Your task to perform on an android device: change timer sound Image 0: 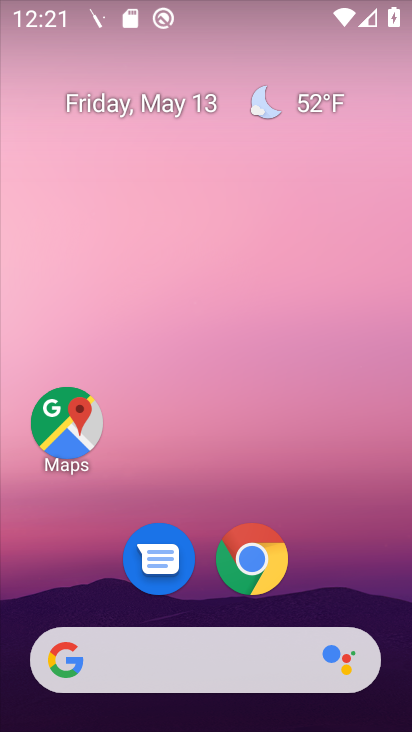
Step 0: drag from (341, 572) to (347, 195)
Your task to perform on an android device: change timer sound Image 1: 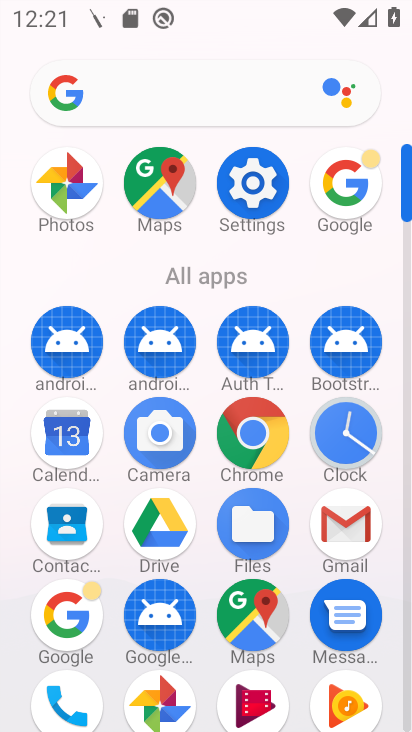
Step 1: click (250, 209)
Your task to perform on an android device: change timer sound Image 2: 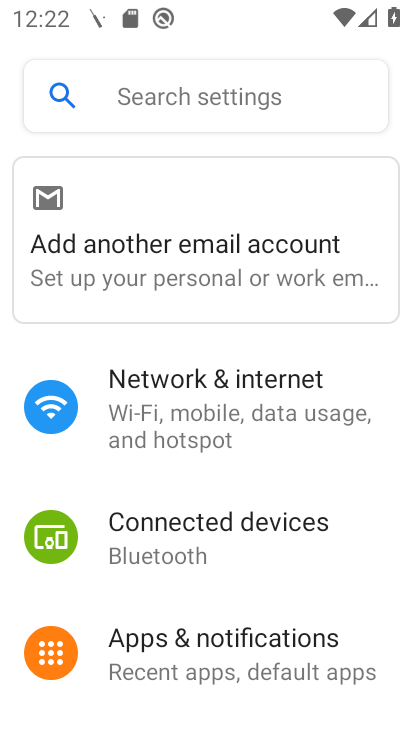
Step 2: press home button
Your task to perform on an android device: change timer sound Image 3: 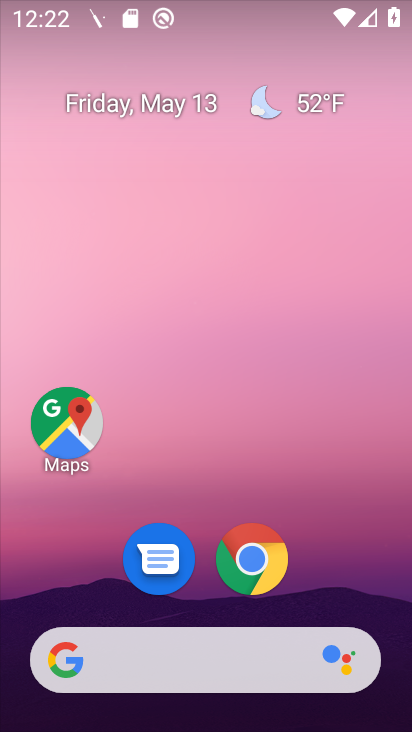
Step 3: drag from (339, 502) to (323, 117)
Your task to perform on an android device: change timer sound Image 4: 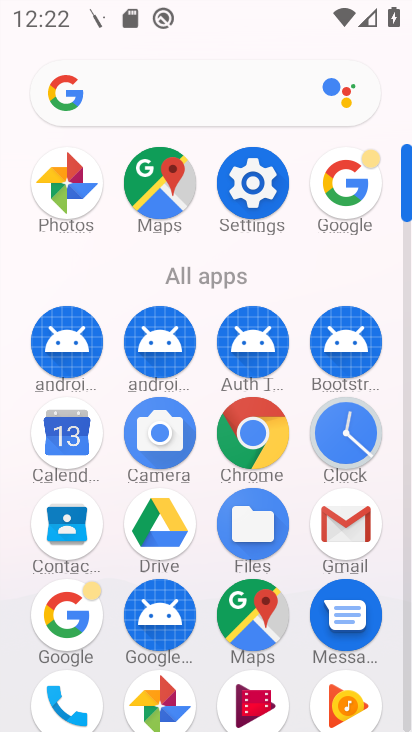
Step 4: click (326, 444)
Your task to perform on an android device: change timer sound Image 5: 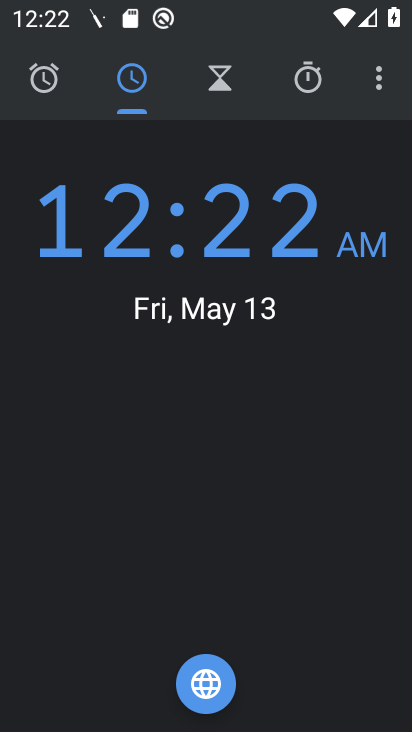
Step 5: click (368, 91)
Your task to perform on an android device: change timer sound Image 6: 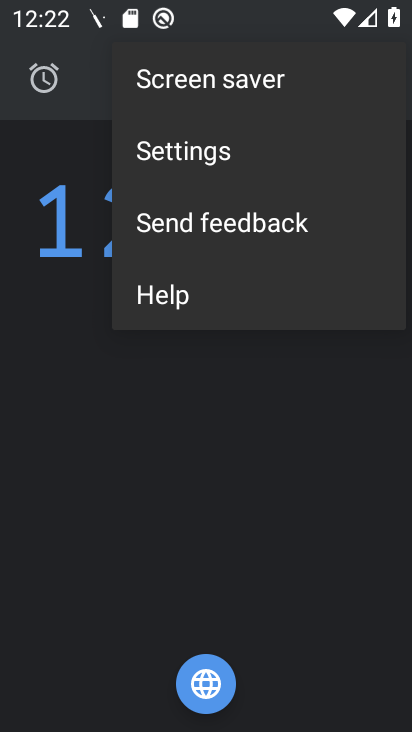
Step 6: click (200, 147)
Your task to perform on an android device: change timer sound Image 7: 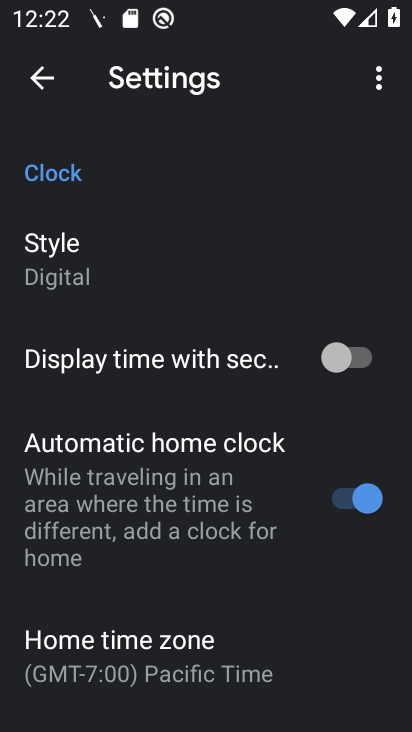
Step 7: drag from (189, 549) to (180, 224)
Your task to perform on an android device: change timer sound Image 8: 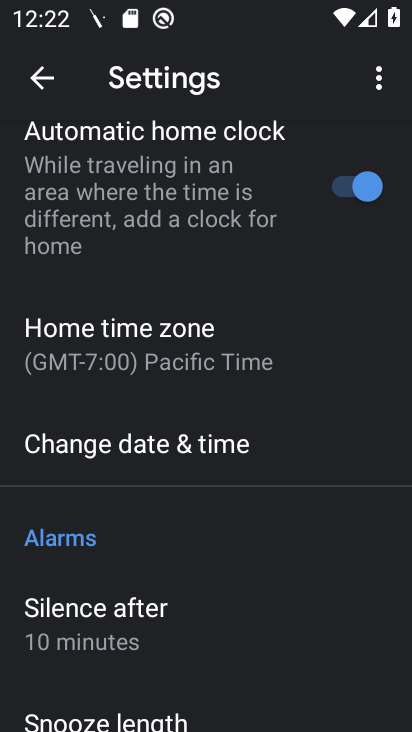
Step 8: drag from (170, 548) to (177, 226)
Your task to perform on an android device: change timer sound Image 9: 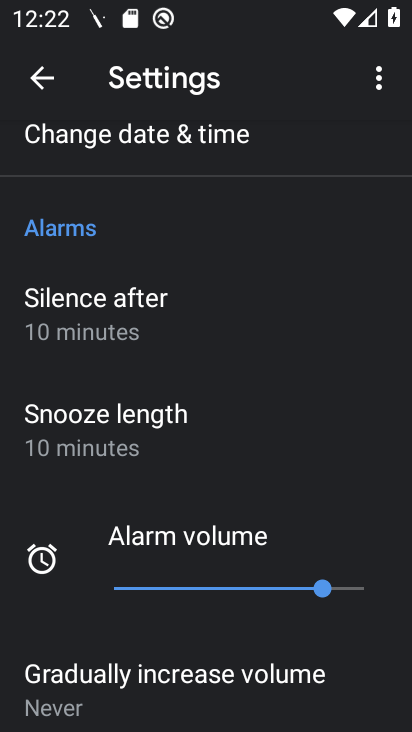
Step 9: drag from (202, 618) to (240, 280)
Your task to perform on an android device: change timer sound Image 10: 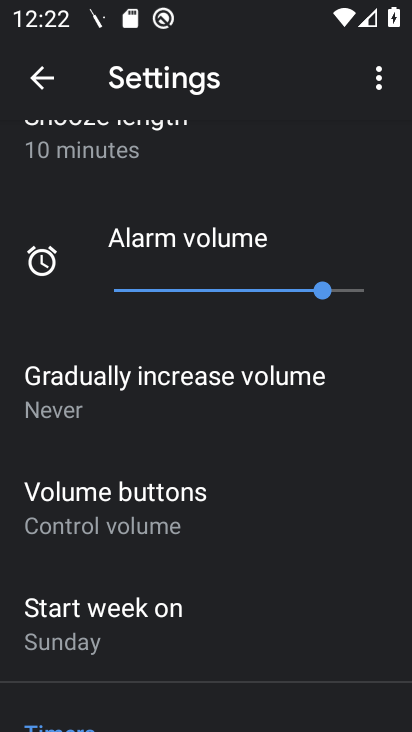
Step 10: drag from (236, 577) to (252, 281)
Your task to perform on an android device: change timer sound Image 11: 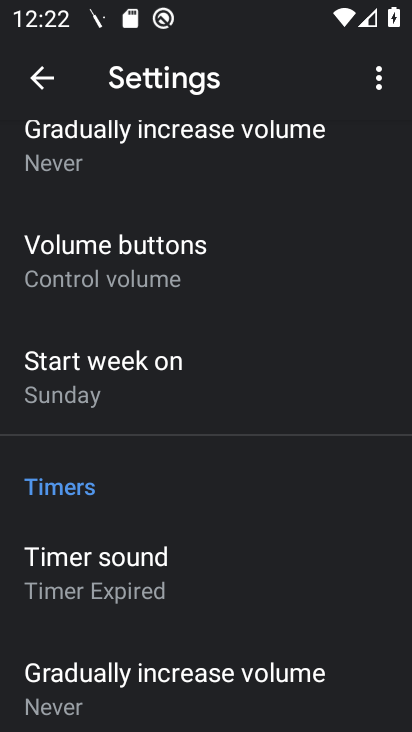
Step 11: click (180, 568)
Your task to perform on an android device: change timer sound Image 12: 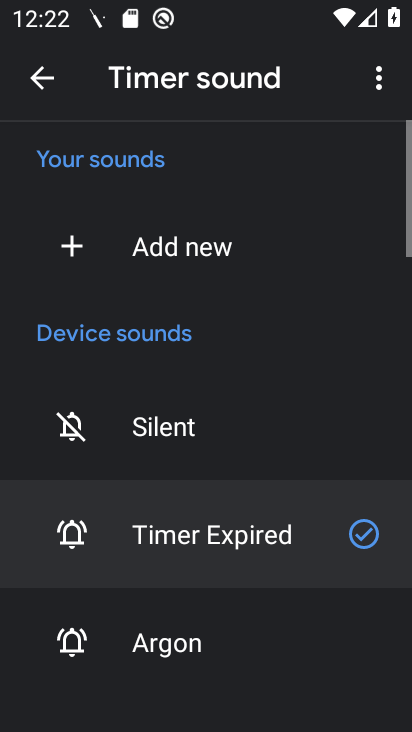
Step 12: click (186, 652)
Your task to perform on an android device: change timer sound Image 13: 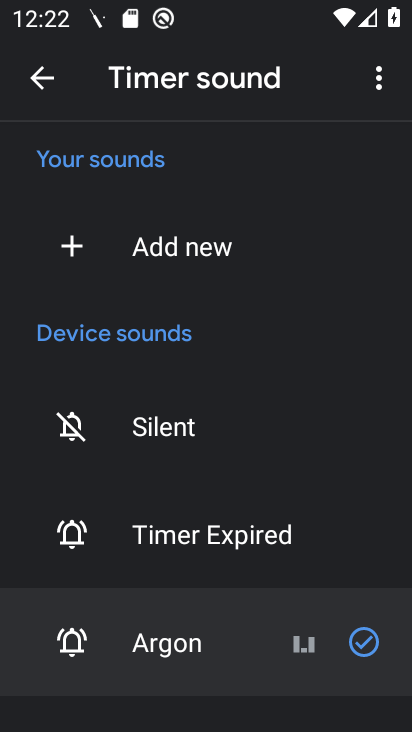
Step 13: task complete